Your task to perform on an android device: turn off location history Image 0: 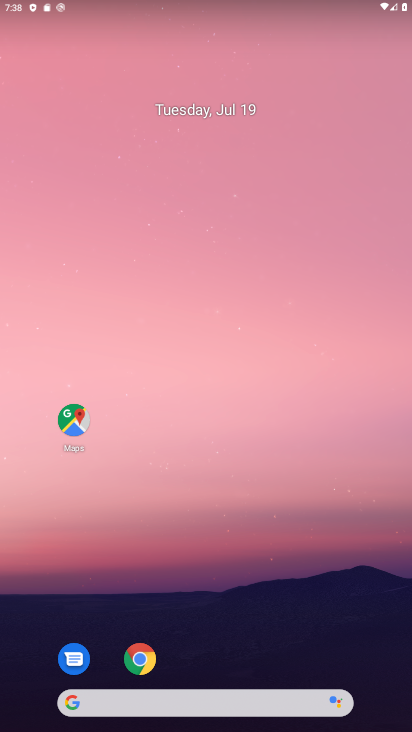
Step 0: drag from (187, 693) to (198, 116)
Your task to perform on an android device: turn off location history Image 1: 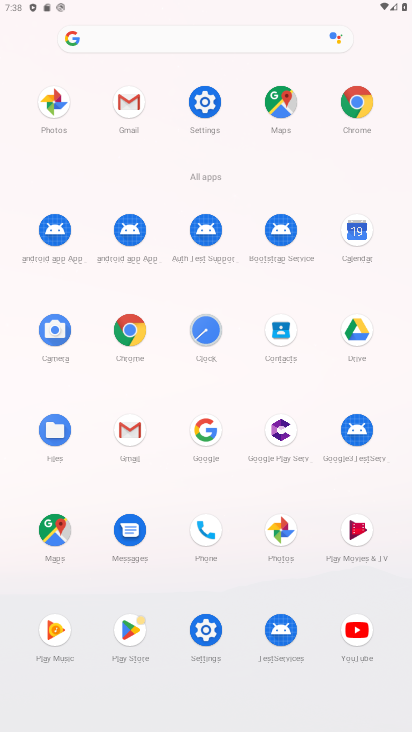
Step 1: click (207, 110)
Your task to perform on an android device: turn off location history Image 2: 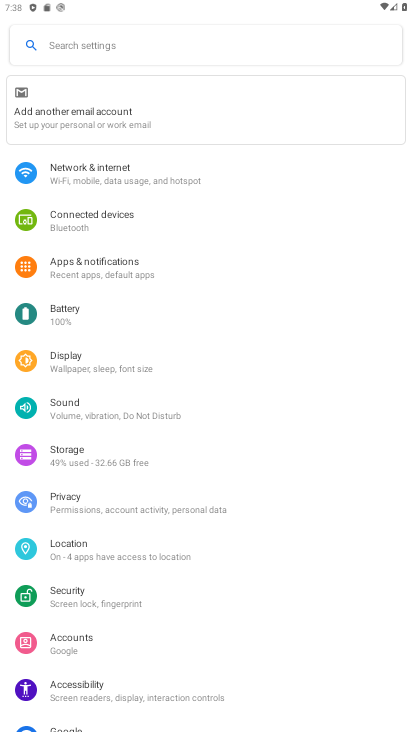
Step 2: click (70, 548)
Your task to perform on an android device: turn off location history Image 3: 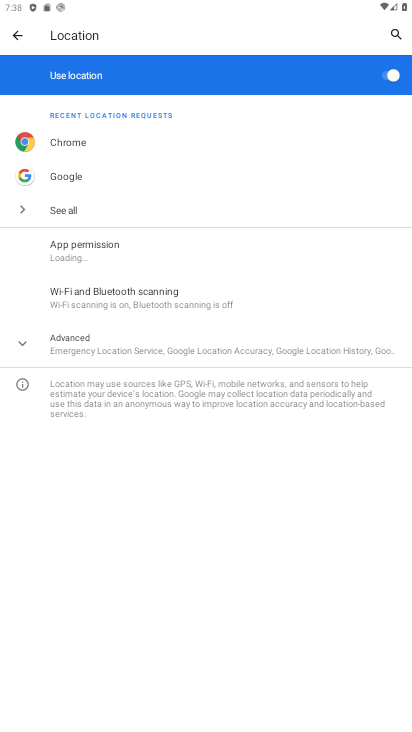
Step 3: click (90, 345)
Your task to perform on an android device: turn off location history Image 4: 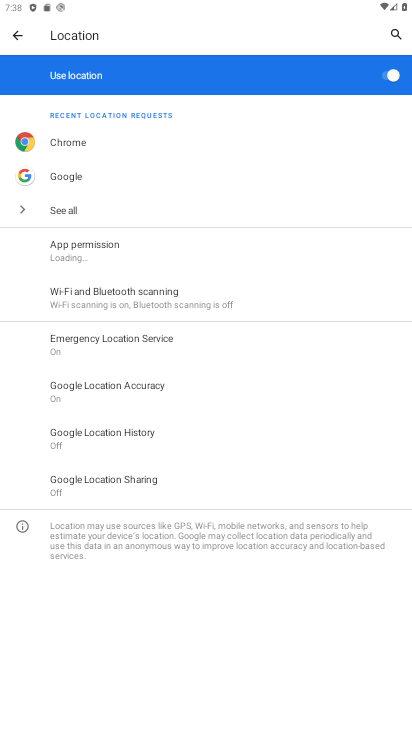
Step 4: click (57, 435)
Your task to perform on an android device: turn off location history Image 5: 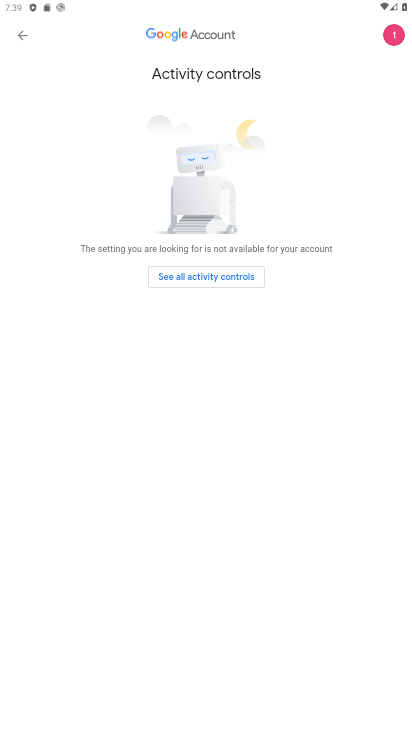
Step 5: click (209, 278)
Your task to perform on an android device: turn off location history Image 6: 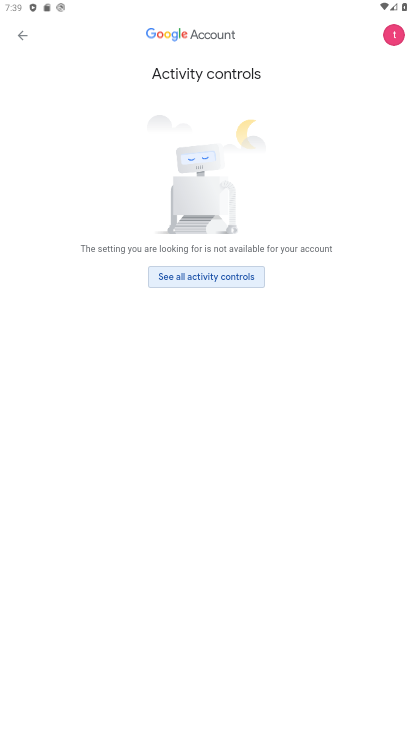
Step 6: click (194, 271)
Your task to perform on an android device: turn off location history Image 7: 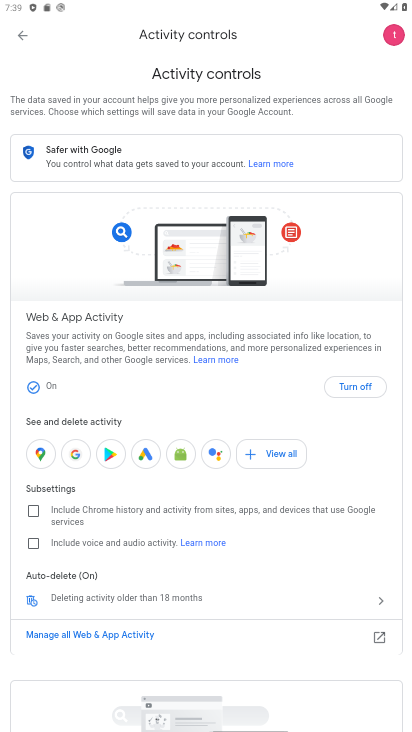
Step 7: click (374, 387)
Your task to perform on an android device: turn off location history Image 8: 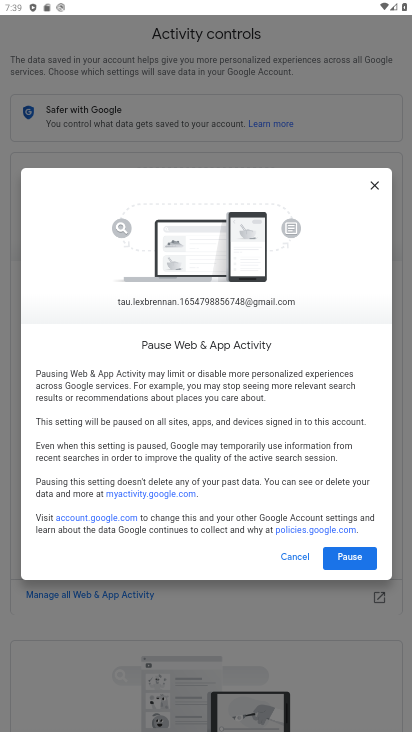
Step 8: click (358, 566)
Your task to perform on an android device: turn off location history Image 9: 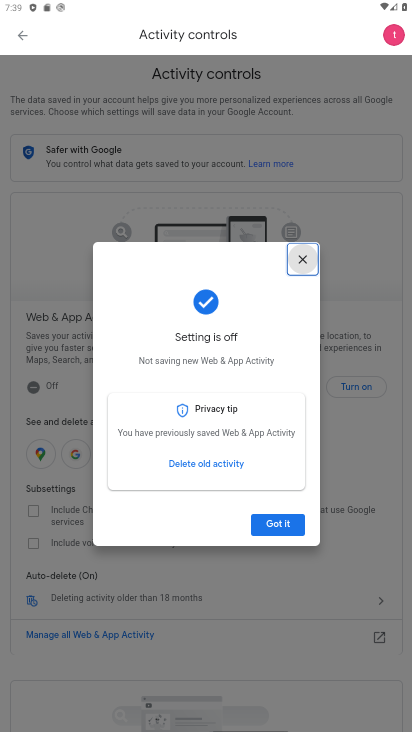
Step 9: click (265, 525)
Your task to perform on an android device: turn off location history Image 10: 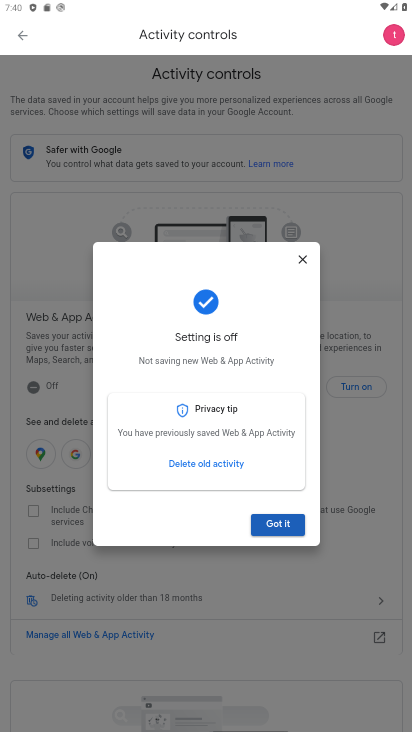
Step 10: click (259, 520)
Your task to perform on an android device: turn off location history Image 11: 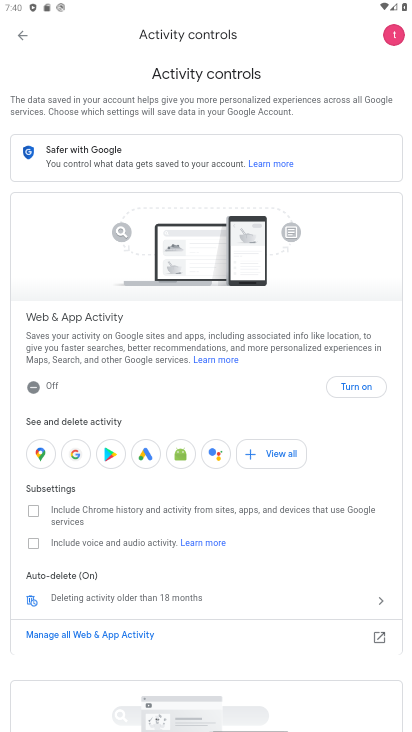
Step 11: task complete